Your task to perform on an android device: allow cookies in the chrome app Image 0: 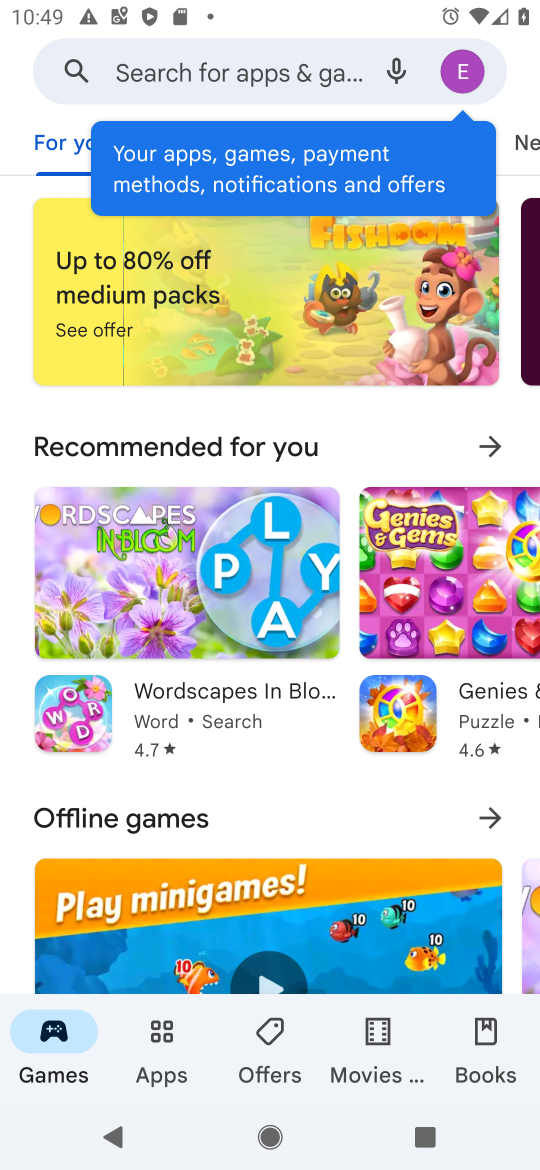
Step 0: press home button
Your task to perform on an android device: allow cookies in the chrome app Image 1: 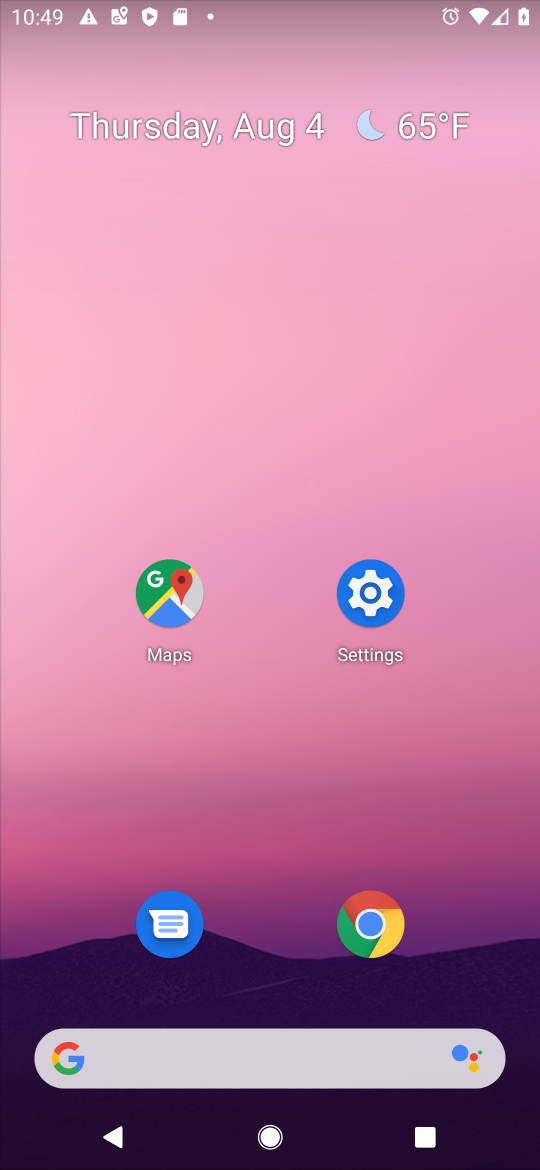
Step 1: click (378, 919)
Your task to perform on an android device: allow cookies in the chrome app Image 2: 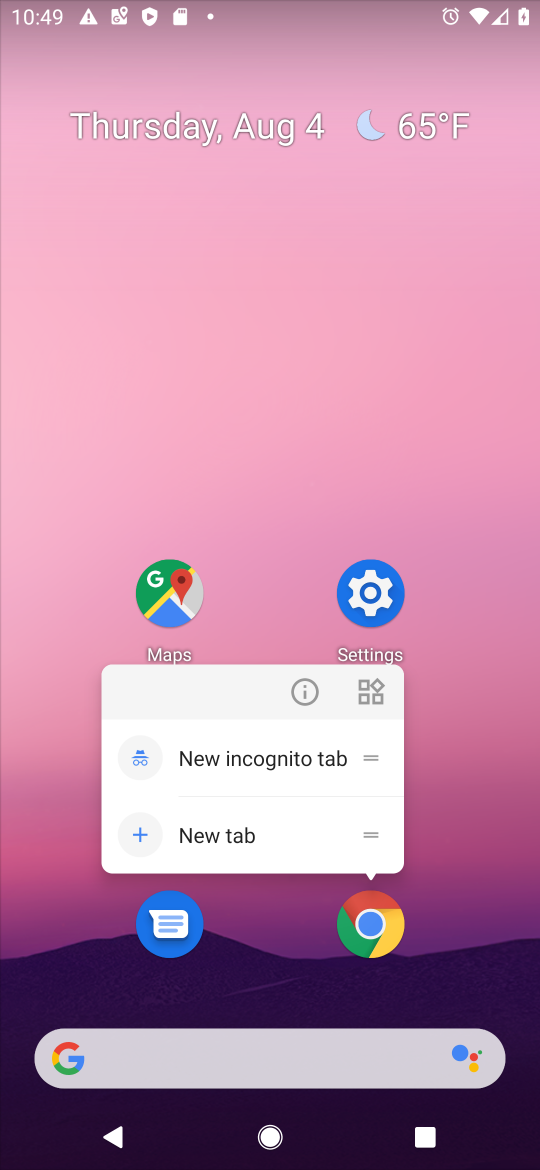
Step 2: click (378, 922)
Your task to perform on an android device: allow cookies in the chrome app Image 3: 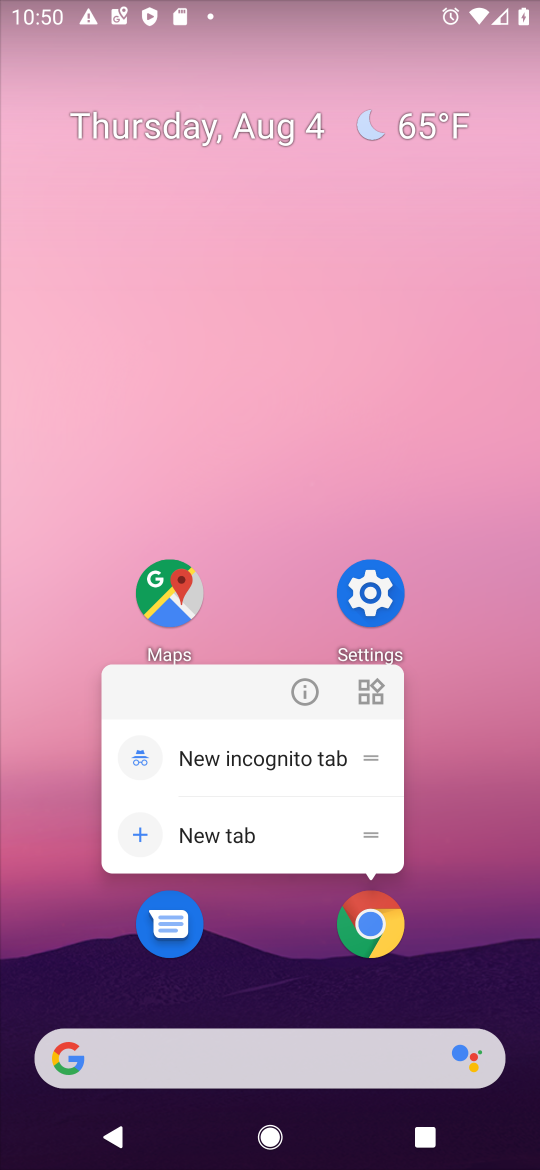
Step 3: click (378, 925)
Your task to perform on an android device: allow cookies in the chrome app Image 4: 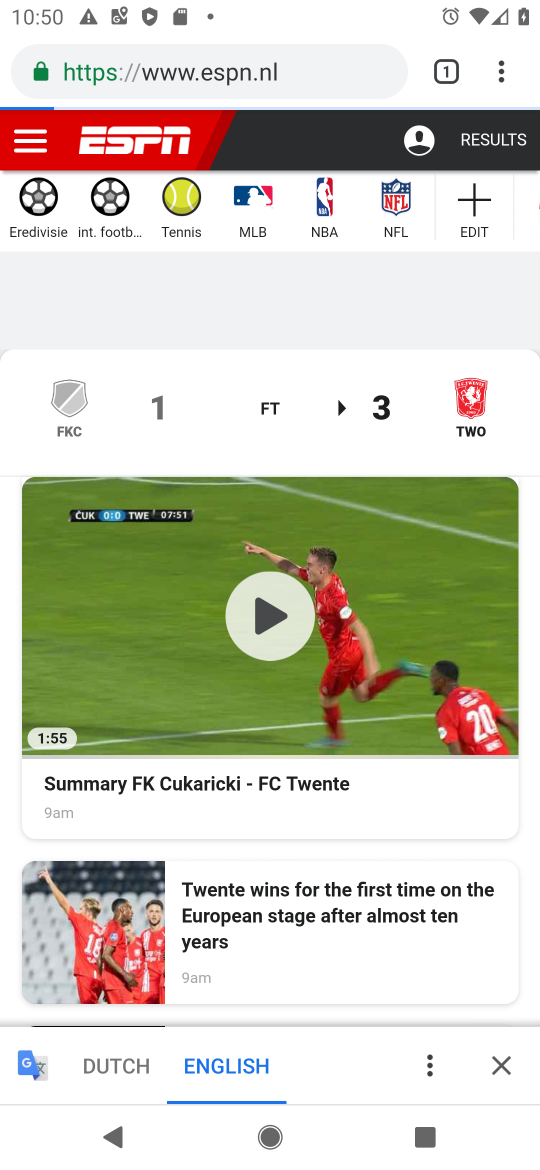
Step 4: drag from (502, 66) to (366, 859)
Your task to perform on an android device: allow cookies in the chrome app Image 5: 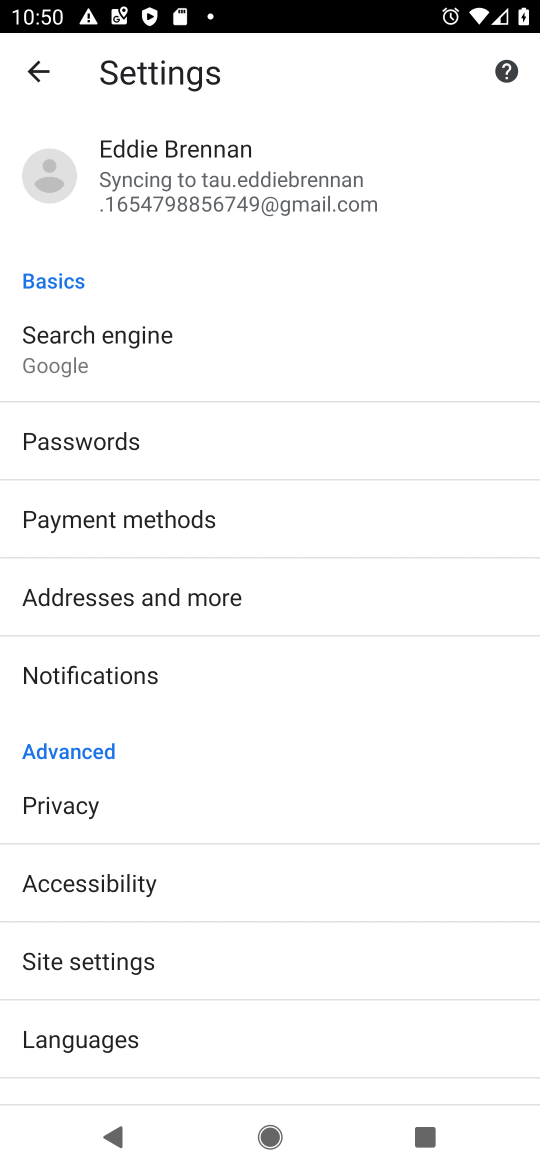
Step 5: drag from (293, 946) to (391, 373)
Your task to perform on an android device: allow cookies in the chrome app Image 6: 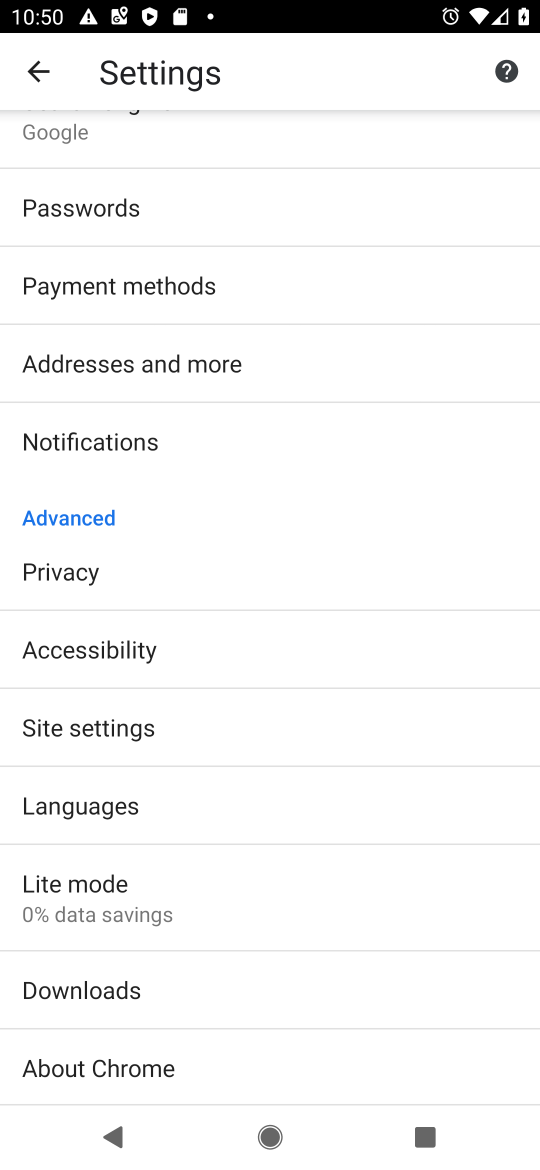
Step 6: click (142, 715)
Your task to perform on an android device: allow cookies in the chrome app Image 7: 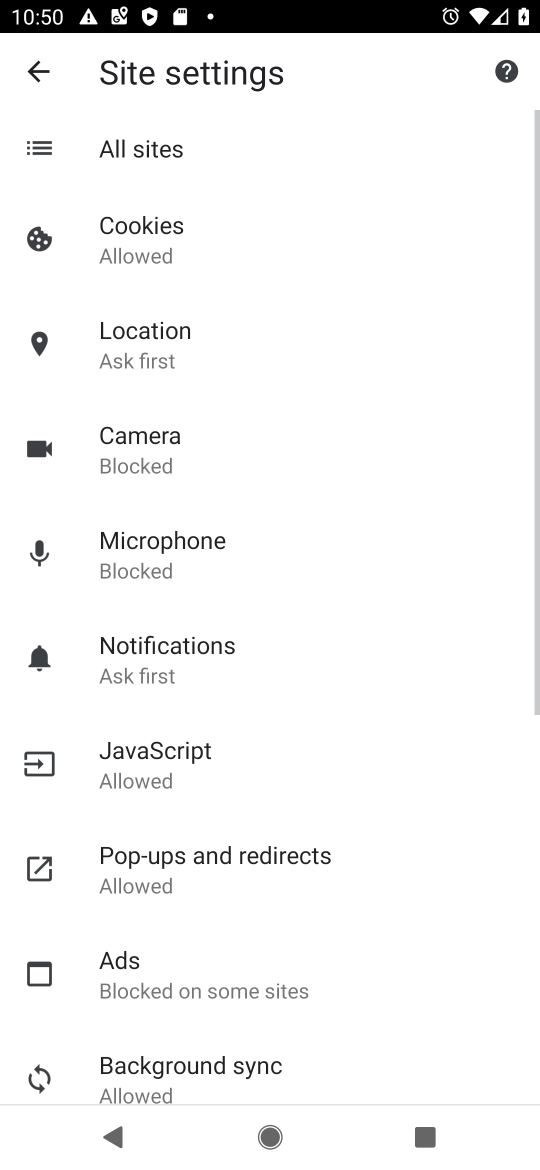
Step 7: click (166, 229)
Your task to perform on an android device: allow cookies in the chrome app Image 8: 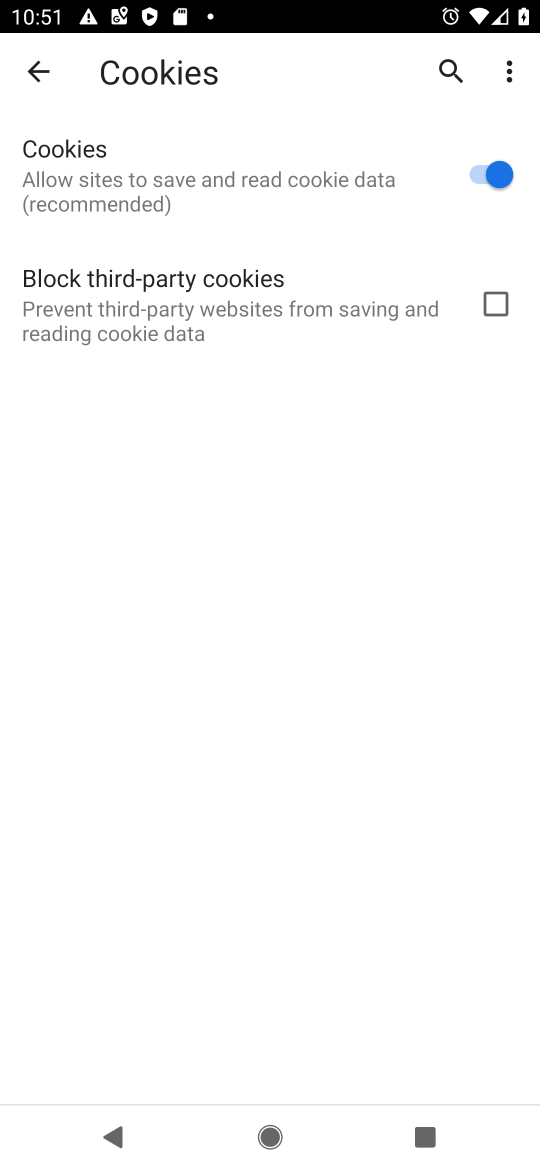
Step 8: task complete